Your task to perform on an android device: turn off javascript in the chrome app Image 0: 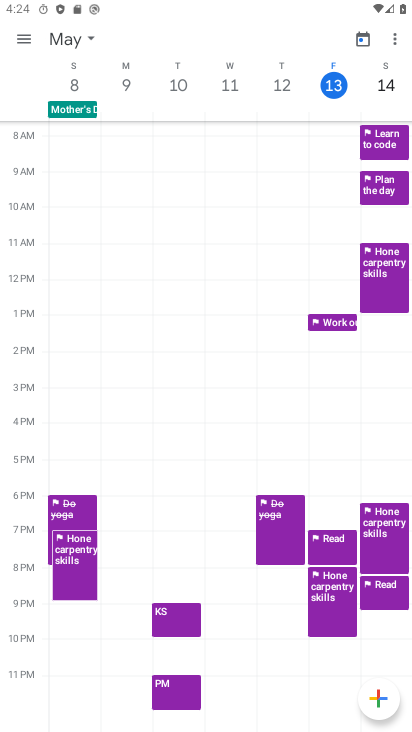
Step 0: press home button
Your task to perform on an android device: turn off javascript in the chrome app Image 1: 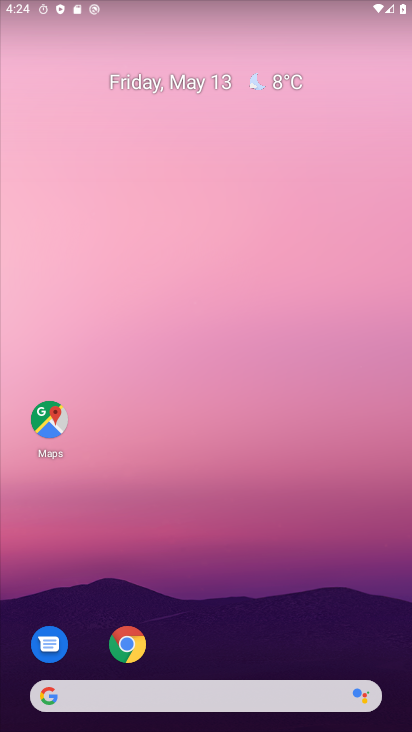
Step 1: click (135, 647)
Your task to perform on an android device: turn off javascript in the chrome app Image 2: 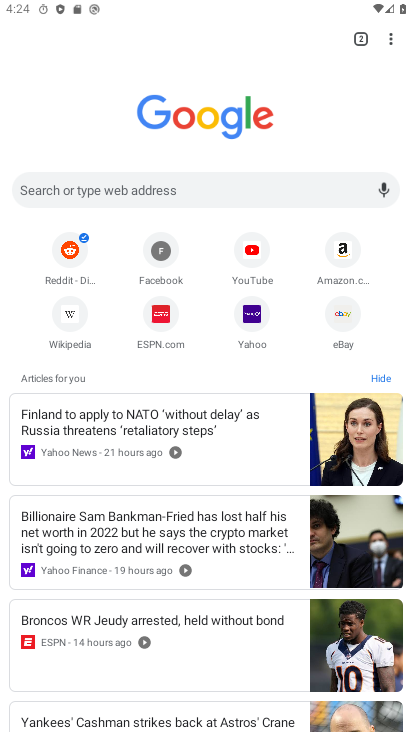
Step 2: click (385, 34)
Your task to perform on an android device: turn off javascript in the chrome app Image 3: 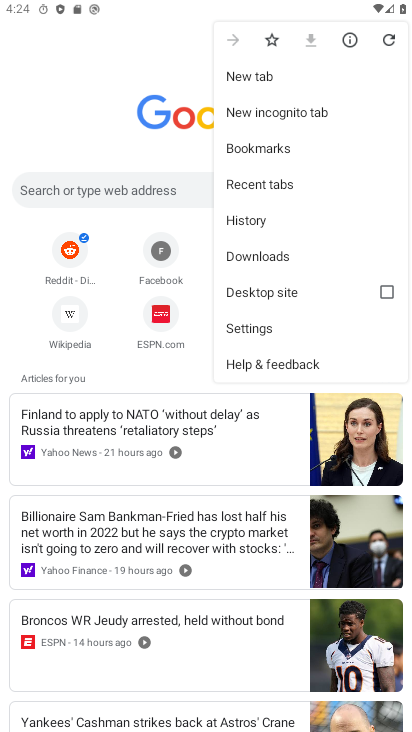
Step 3: click (274, 335)
Your task to perform on an android device: turn off javascript in the chrome app Image 4: 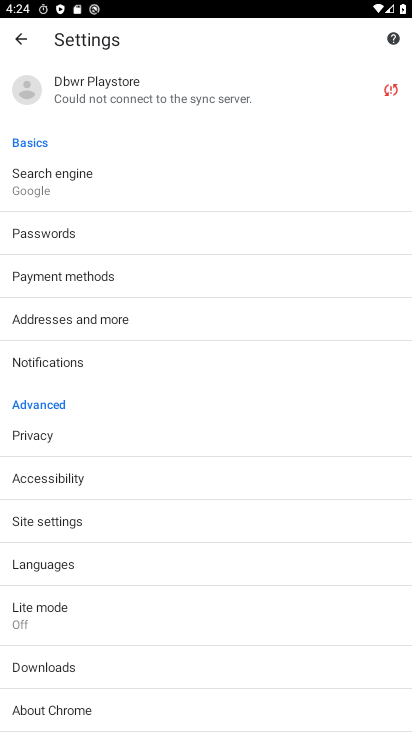
Step 4: click (169, 520)
Your task to perform on an android device: turn off javascript in the chrome app Image 5: 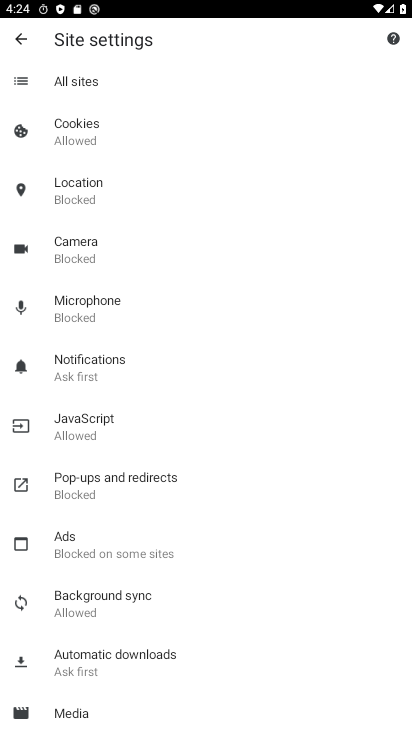
Step 5: click (113, 430)
Your task to perform on an android device: turn off javascript in the chrome app Image 6: 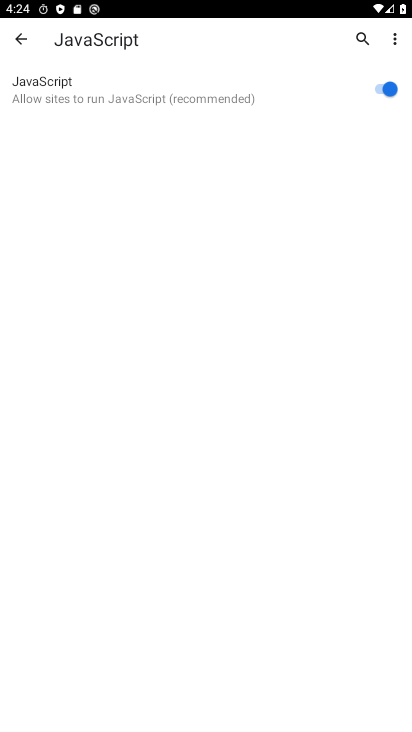
Step 6: click (376, 81)
Your task to perform on an android device: turn off javascript in the chrome app Image 7: 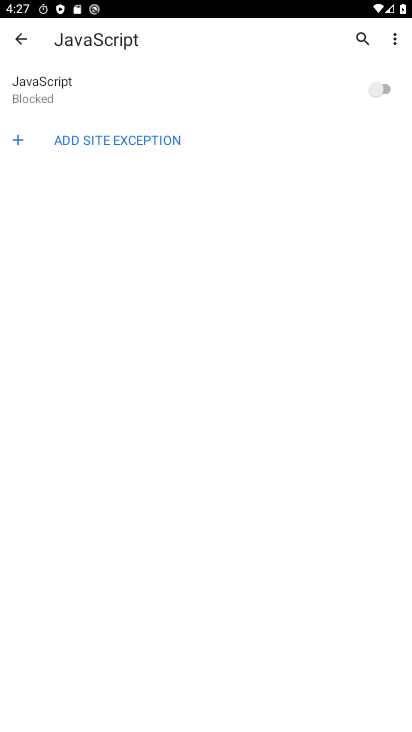
Step 7: task complete